Your task to perform on an android device: Search for pizza restaurants on Maps Image 0: 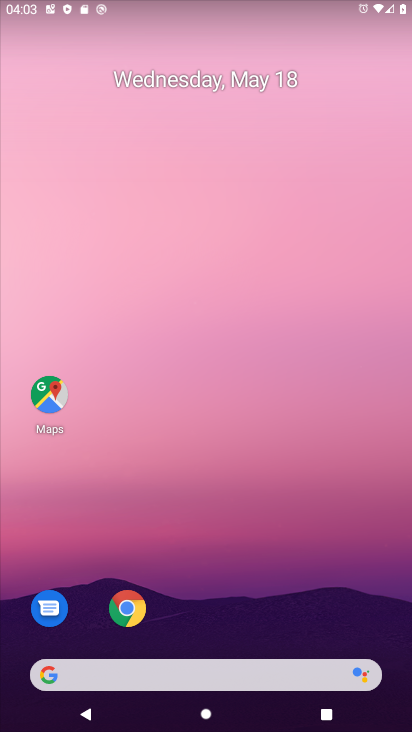
Step 0: click (39, 389)
Your task to perform on an android device: Search for pizza restaurants on Maps Image 1: 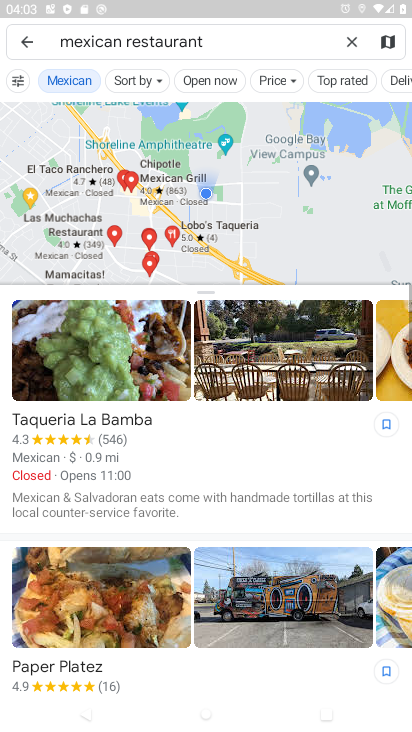
Step 1: click (362, 38)
Your task to perform on an android device: Search for pizza restaurants on Maps Image 2: 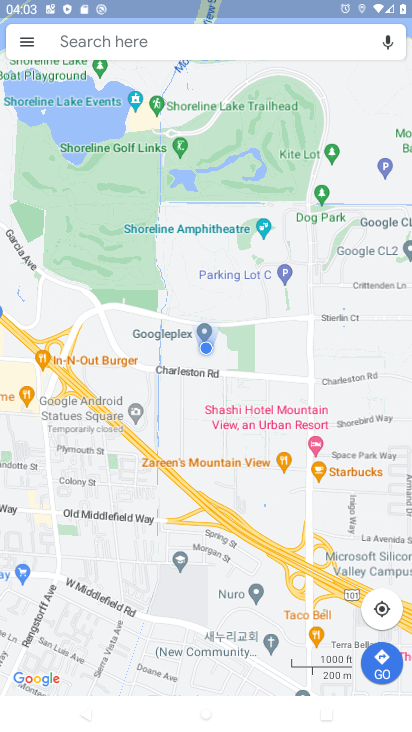
Step 2: click (226, 45)
Your task to perform on an android device: Search for pizza restaurants on Maps Image 3: 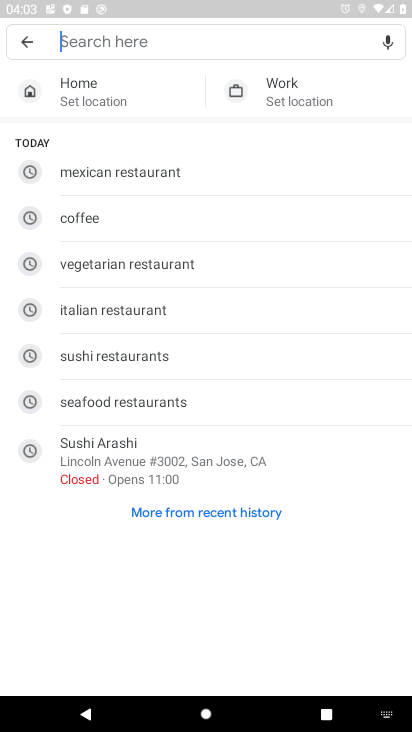
Step 3: type "pizza restaurant"
Your task to perform on an android device: Search for pizza restaurants on Maps Image 4: 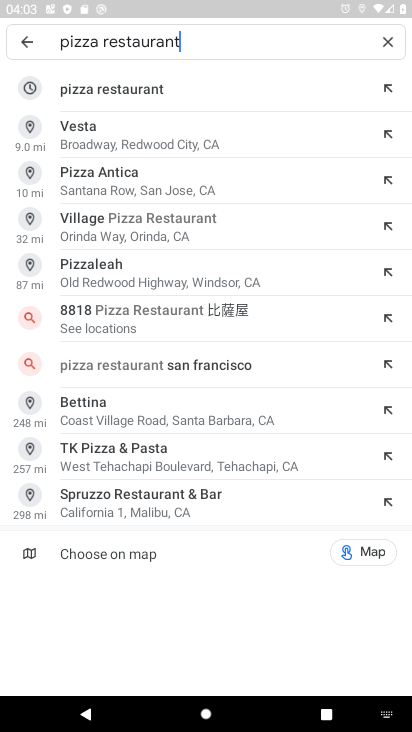
Step 4: click (167, 82)
Your task to perform on an android device: Search for pizza restaurants on Maps Image 5: 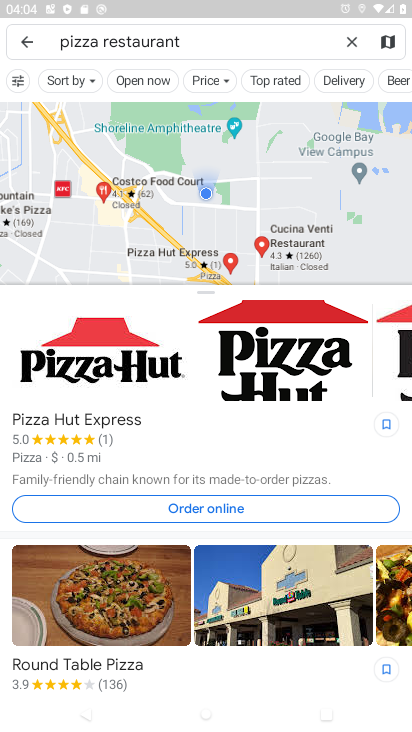
Step 5: task complete